Your task to perform on an android device: choose inbox layout in the gmail app Image 0: 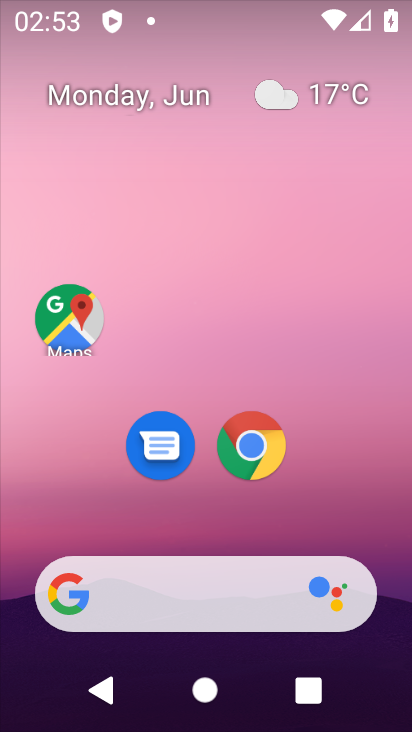
Step 0: drag from (145, 529) to (271, 44)
Your task to perform on an android device: choose inbox layout in the gmail app Image 1: 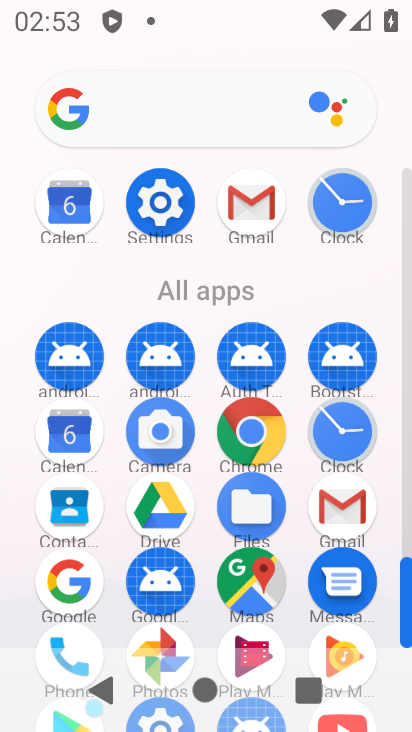
Step 1: drag from (263, 390) to (293, 316)
Your task to perform on an android device: choose inbox layout in the gmail app Image 2: 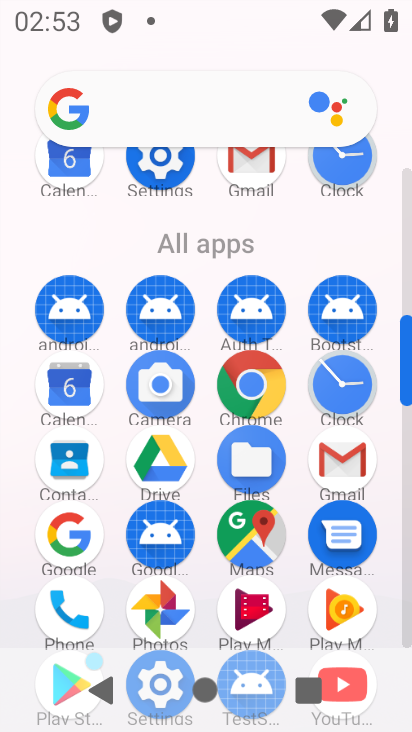
Step 2: drag from (181, 651) to (260, 408)
Your task to perform on an android device: choose inbox layout in the gmail app Image 3: 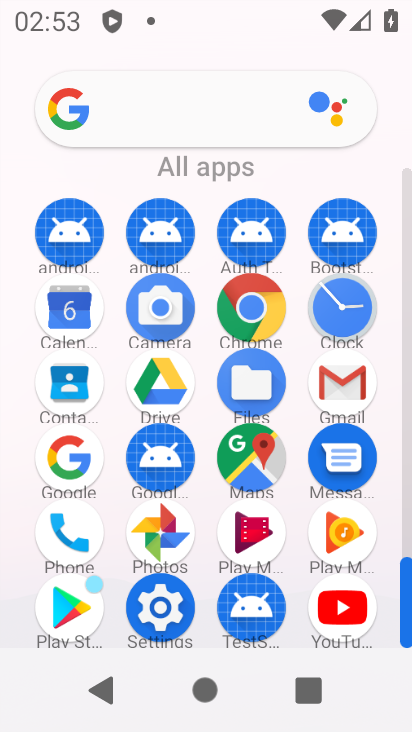
Step 3: click (360, 381)
Your task to perform on an android device: choose inbox layout in the gmail app Image 4: 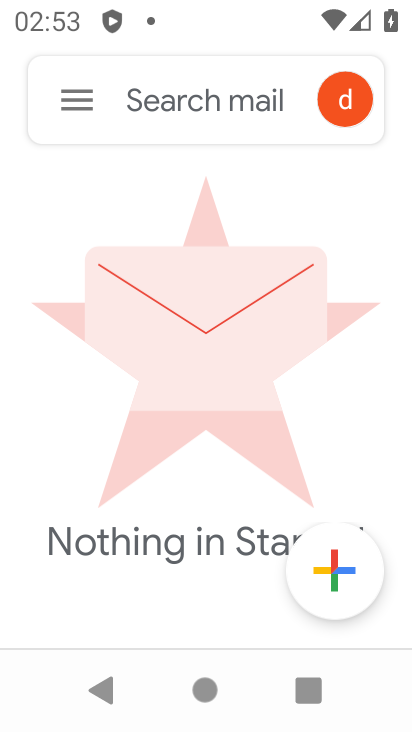
Step 4: click (66, 101)
Your task to perform on an android device: choose inbox layout in the gmail app Image 5: 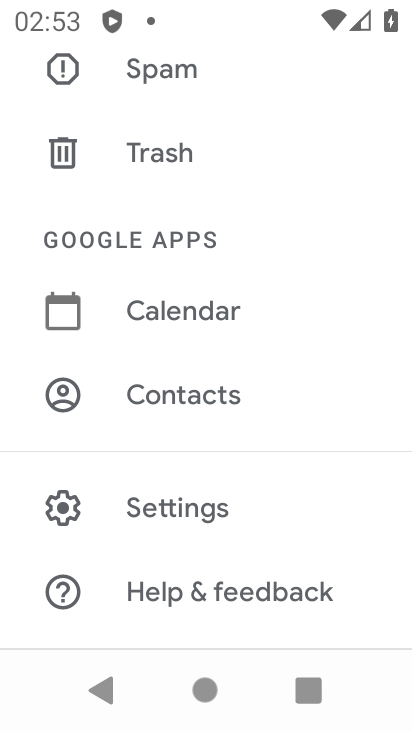
Step 5: drag from (195, 578) to (262, 284)
Your task to perform on an android device: choose inbox layout in the gmail app Image 6: 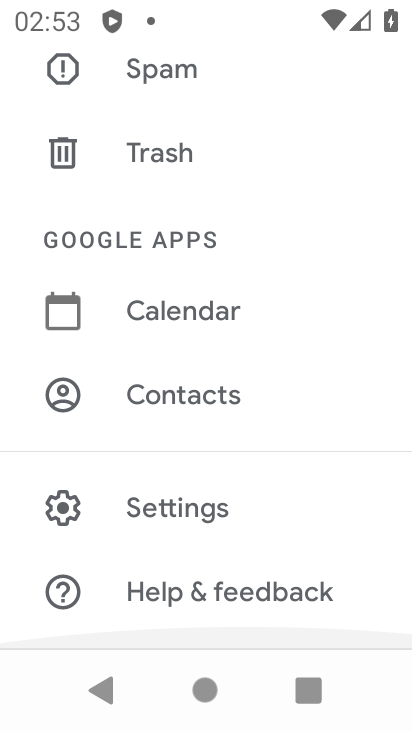
Step 6: click (198, 504)
Your task to perform on an android device: choose inbox layout in the gmail app Image 7: 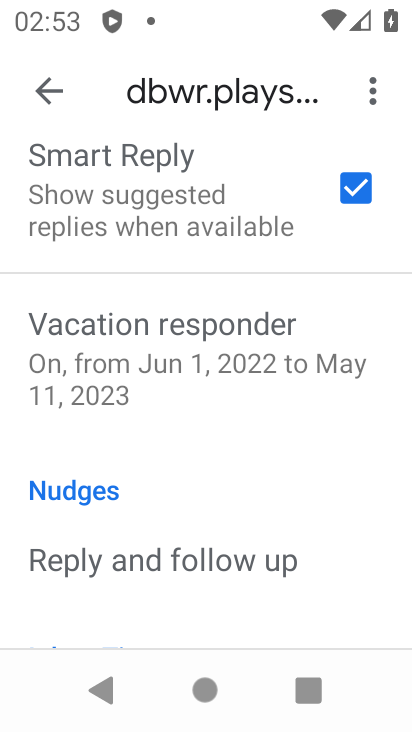
Step 7: click (53, 105)
Your task to perform on an android device: choose inbox layout in the gmail app Image 8: 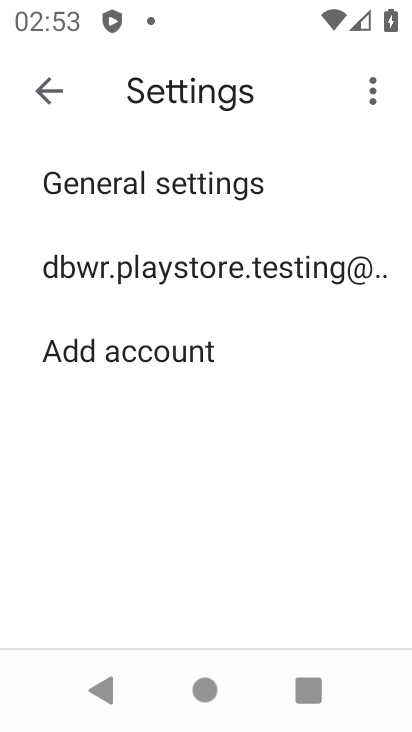
Step 8: click (272, 268)
Your task to perform on an android device: choose inbox layout in the gmail app Image 9: 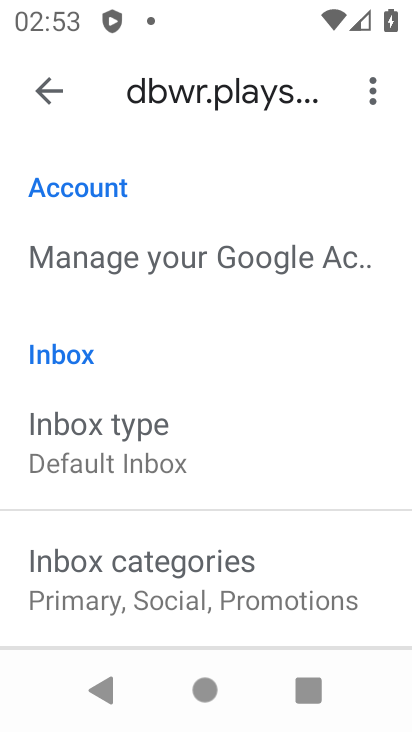
Step 9: click (196, 468)
Your task to perform on an android device: choose inbox layout in the gmail app Image 10: 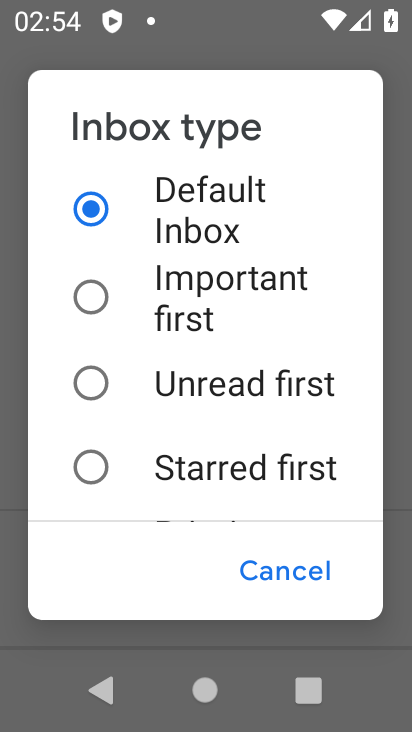
Step 10: click (187, 467)
Your task to perform on an android device: choose inbox layout in the gmail app Image 11: 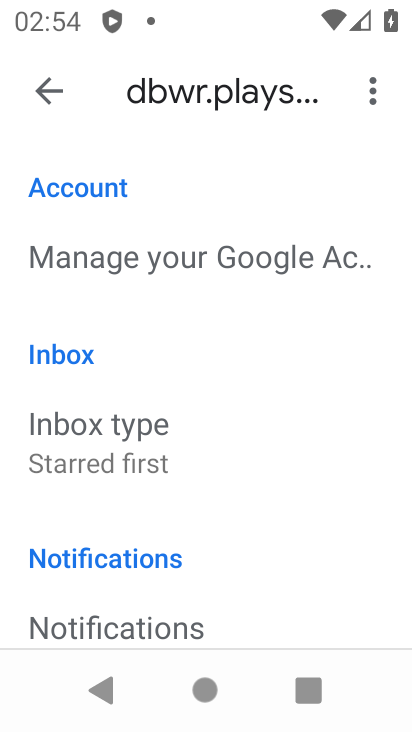
Step 11: task complete